Your task to perform on an android device: toggle airplane mode Image 0: 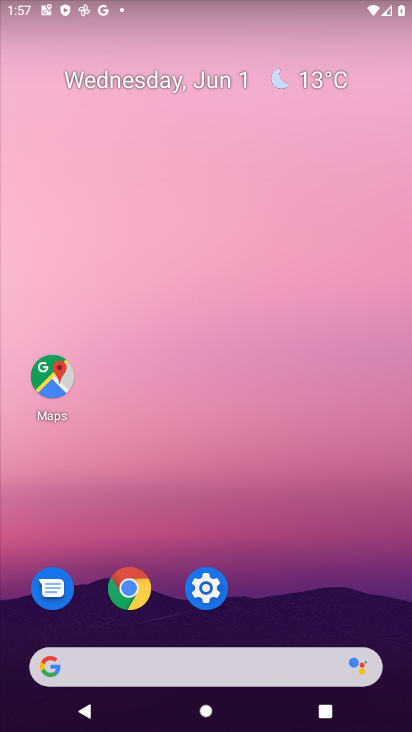
Step 0: click (208, 587)
Your task to perform on an android device: toggle airplane mode Image 1: 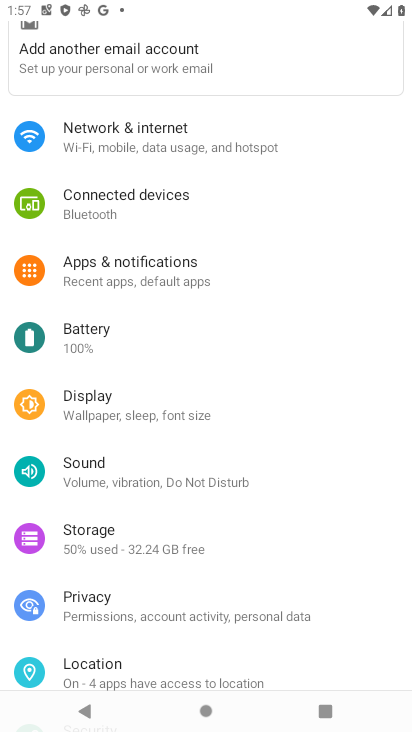
Step 1: click (161, 148)
Your task to perform on an android device: toggle airplane mode Image 2: 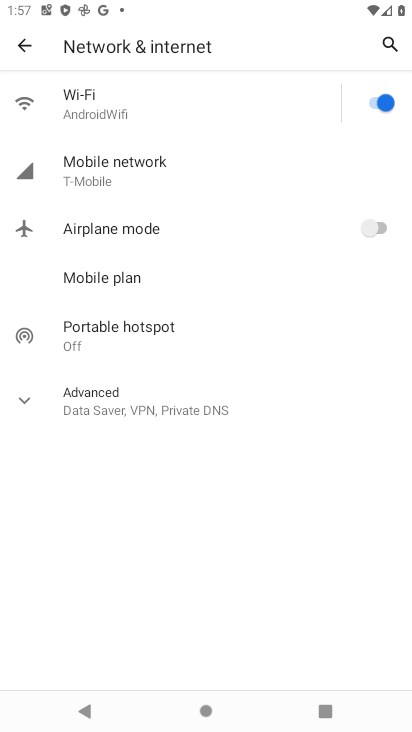
Step 2: click (188, 242)
Your task to perform on an android device: toggle airplane mode Image 3: 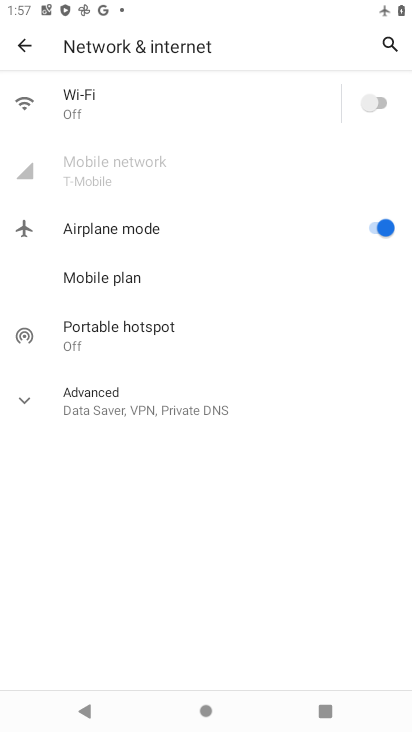
Step 3: click (188, 242)
Your task to perform on an android device: toggle airplane mode Image 4: 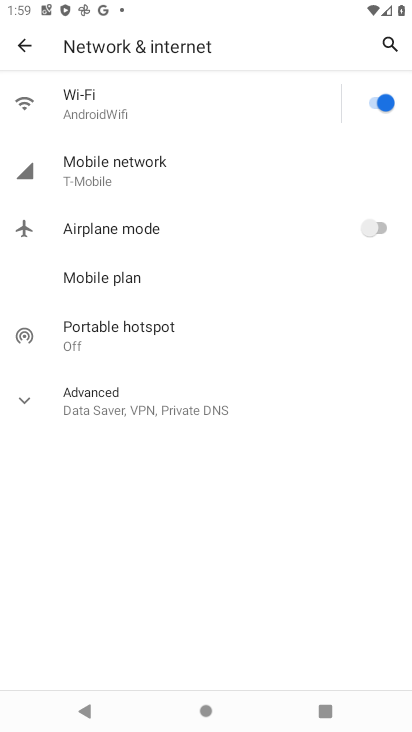
Step 4: task complete